Your task to perform on an android device: turn vacation reply on in the gmail app Image 0: 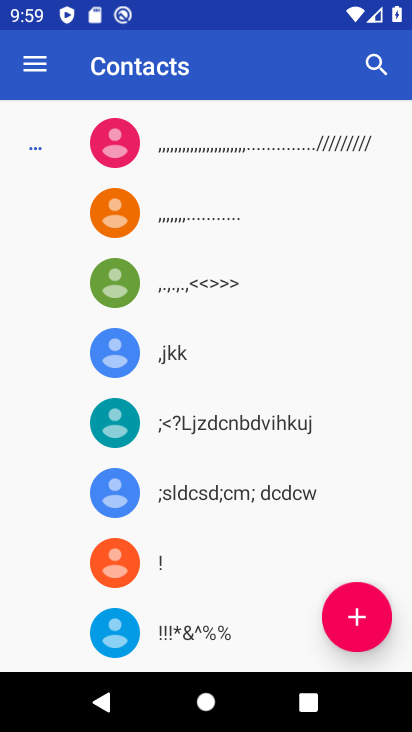
Step 0: press home button
Your task to perform on an android device: turn vacation reply on in the gmail app Image 1: 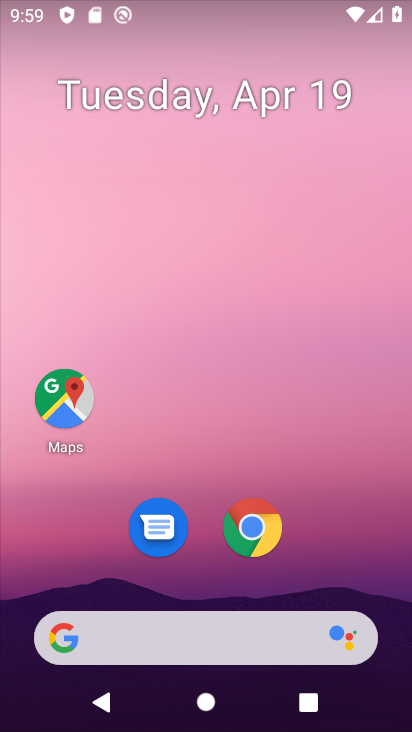
Step 1: drag from (324, 455) to (336, 143)
Your task to perform on an android device: turn vacation reply on in the gmail app Image 2: 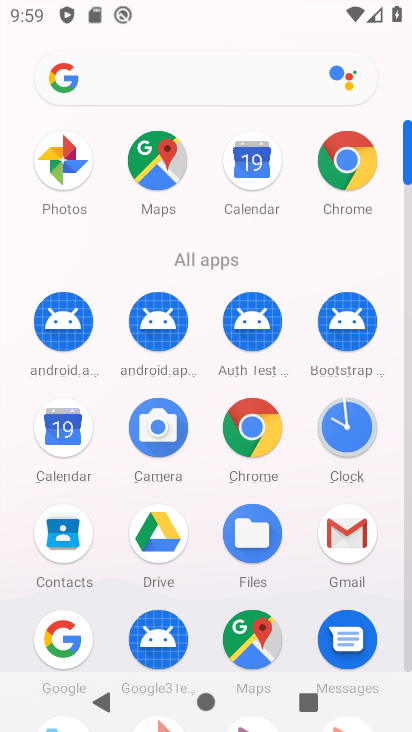
Step 2: click (347, 526)
Your task to perform on an android device: turn vacation reply on in the gmail app Image 3: 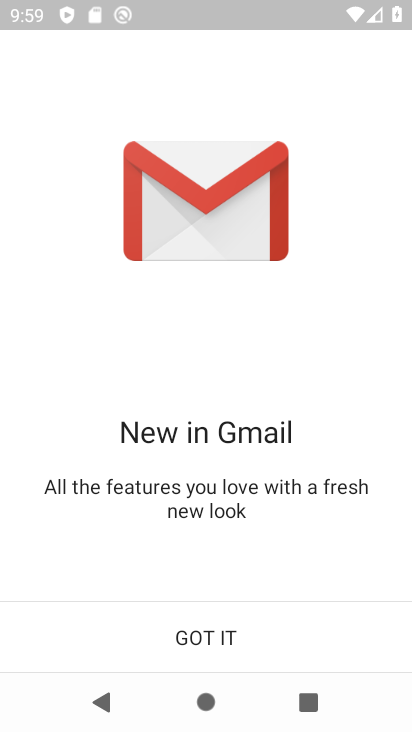
Step 3: click (220, 641)
Your task to perform on an android device: turn vacation reply on in the gmail app Image 4: 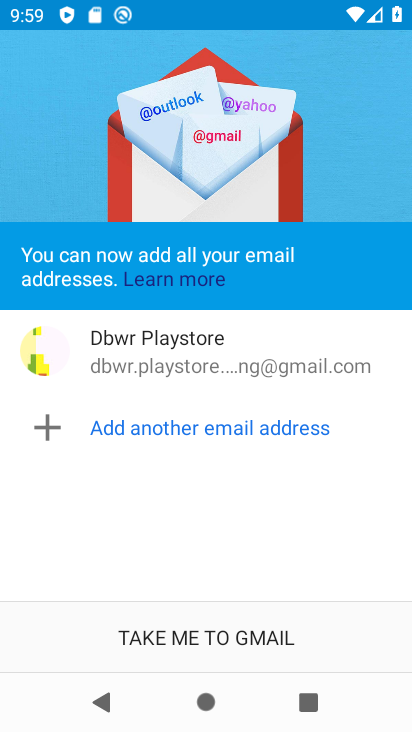
Step 4: click (229, 633)
Your task to perform on an android device: turn vacation reply on in the gmail app Image 5: 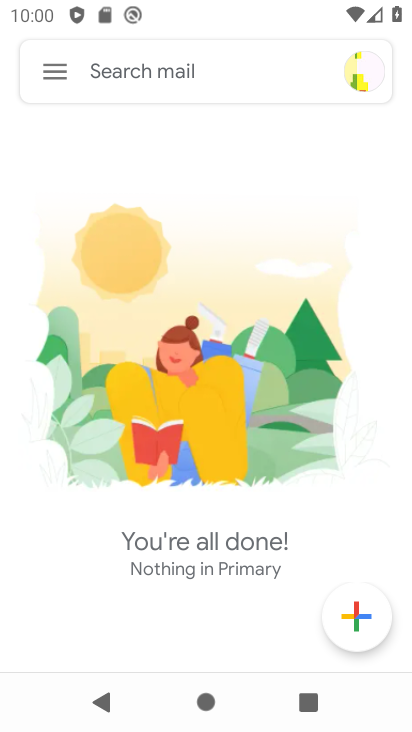
Step 5: click (51, 70)
Your task to perform on an android device: turn vacation reply on in the gmail app Image 6: 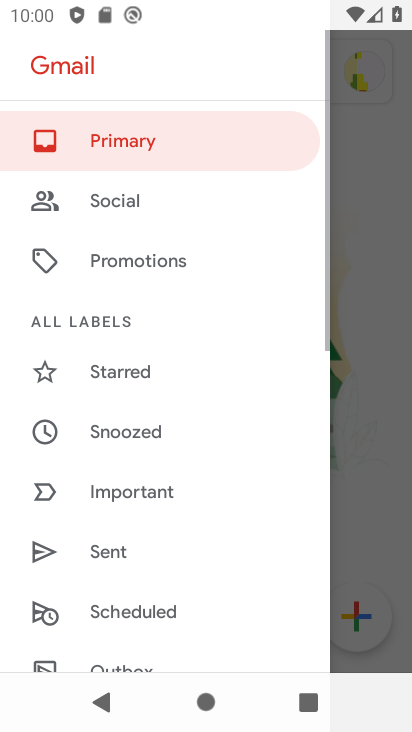
Step 6: drag from (145, 655) to (170, 252)
Your task to perform on an android device: turn vacation reply on in the gmail app Image 7: 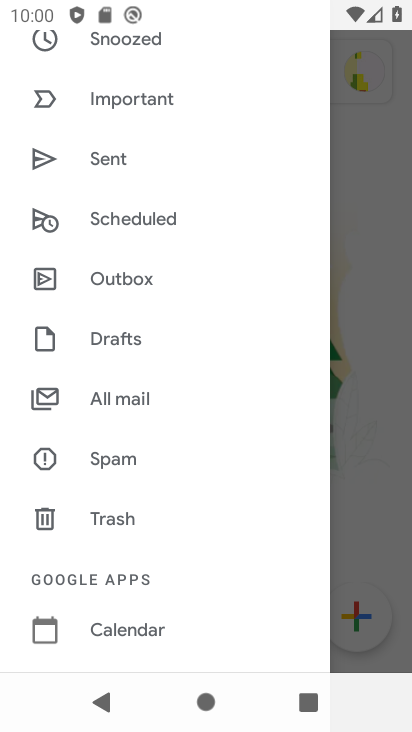
Step 7: drag from (165, 616) to (196, 348)
Your task to perform on an android device: turn vacation reply on in the gmail app Image 8: 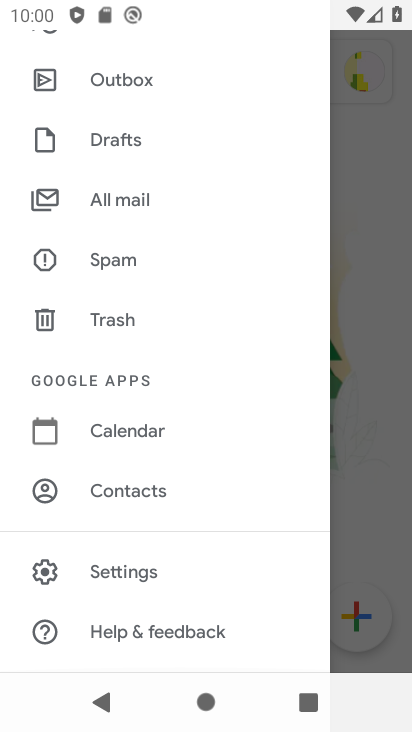
Step 8: click (124, 574)
Your task to perform on an android device: turn vacation reply on in the gmail app Image 9: 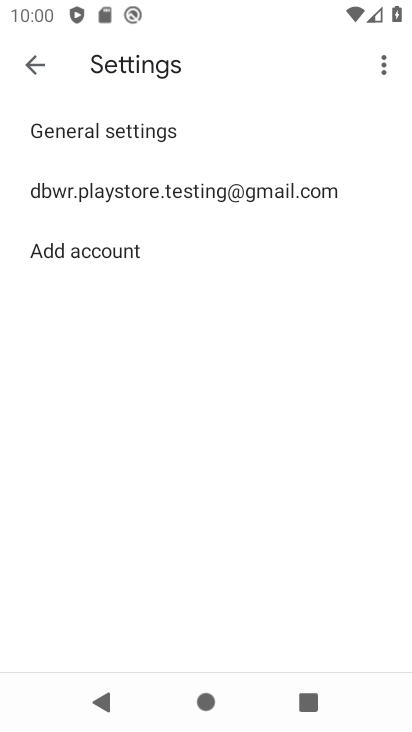
Step 9: click (121, 202)
Your task to perform on an android device: turn vacation reply on in the gmail app Image 10: 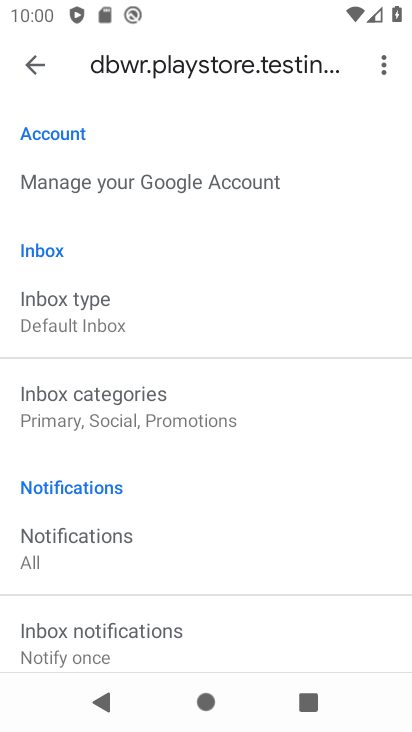
Step 10: drag from (130, 598) to (131, 259)
Your task to perform on an android device: turn vacation reply on in the gmail app Image 11: 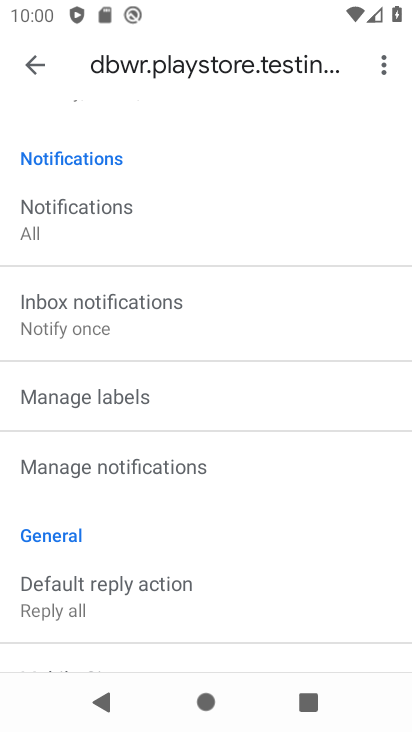
Step 11: drag from (134, 614) to (163, 289)
Your task to perform on an android device: turn vacation reply on in the gmail app Image 12: 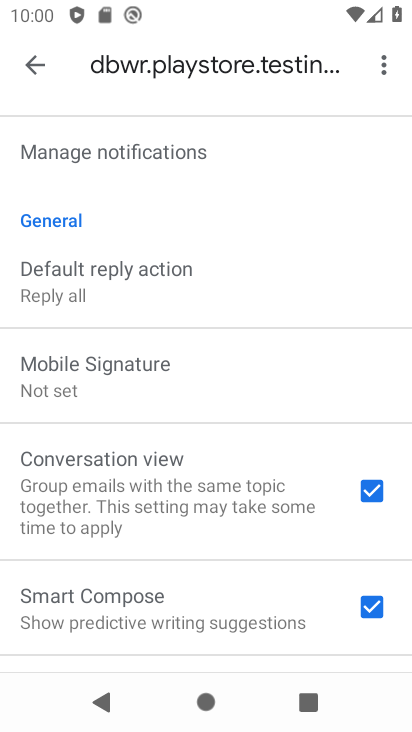
Step 12: drag from (137, 628) to (148, 231)
Your task to perform on an android device: turn vacation reply on in the gmail app Image 13: 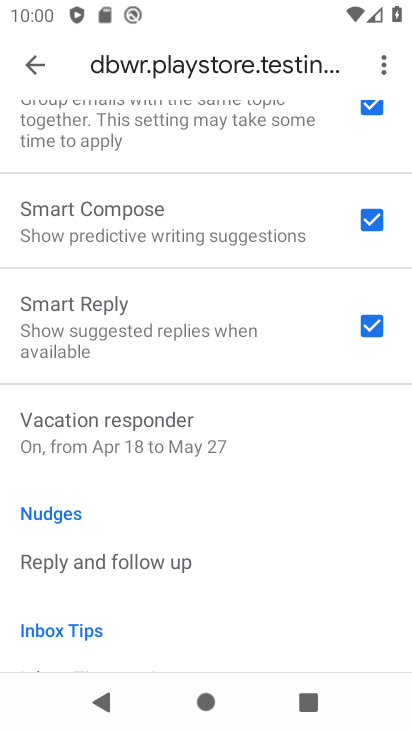
Step 13: click (143, 442)
Your task to perform on an android device: turn vacation reply on in the gmail app Image 14: 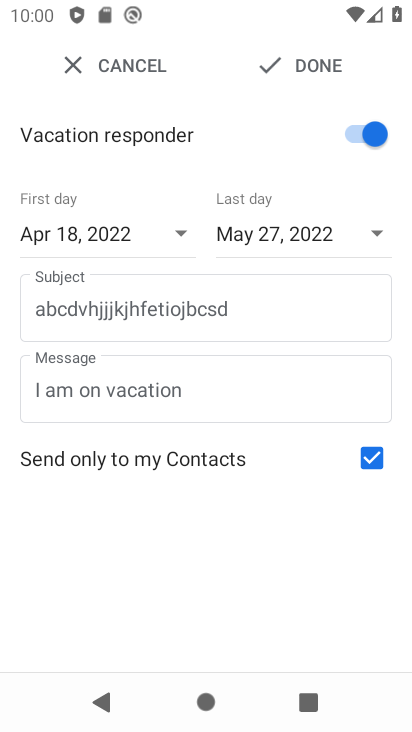
Step 14: task complete